Your task to perform on an android device: Open wifi settings Image 0: 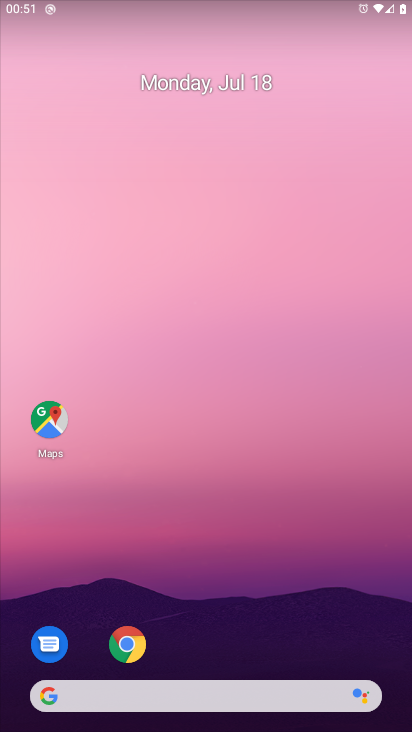
Step 0: press home button
Your task to perform on an android device: Open wifi settings Image 1: 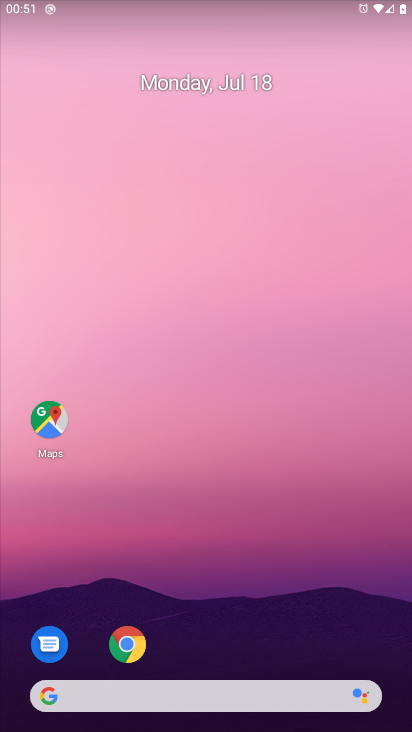
Step 1: drag from (256, 597) to (229, 57)
Your task to perform on an android device: Open wifi settings Image 2: 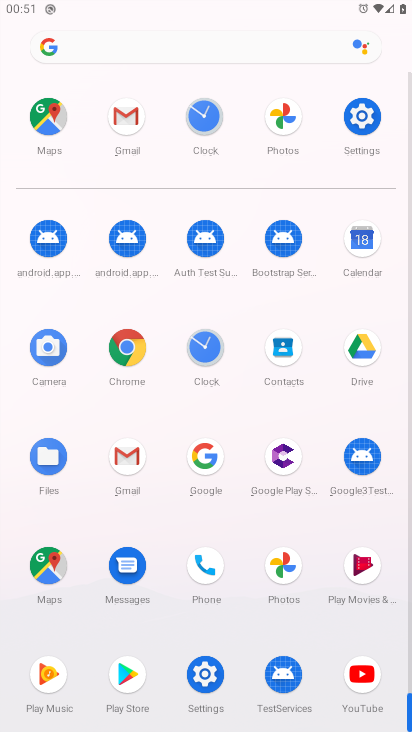
Step 2: click (362, 117)
Your task to perform on an android device: Open wifi settings Image 3: 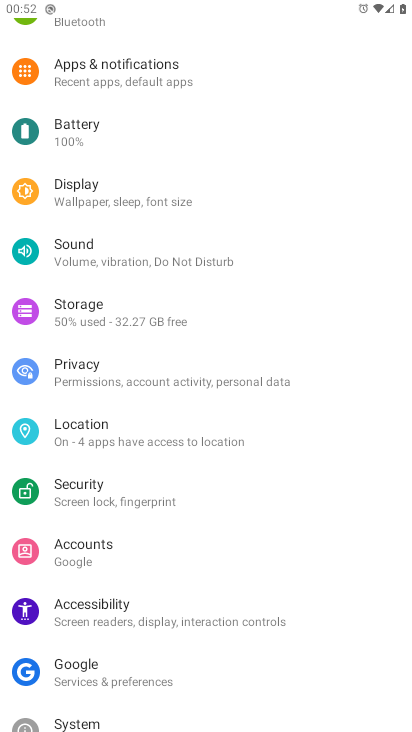
Step 3: drag from (137, 41) to (122, 310)
Your task to perform on an android device: Open wifi settings Image 4: 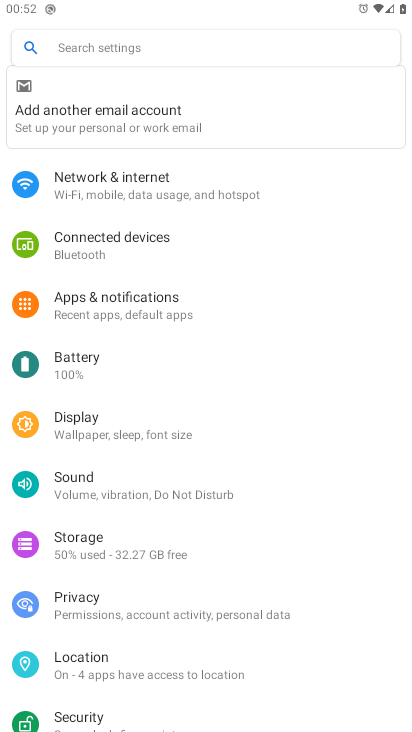
Step 4: click (115, 175)
Your task to perform on an android device: Open wifi settings Image 5: 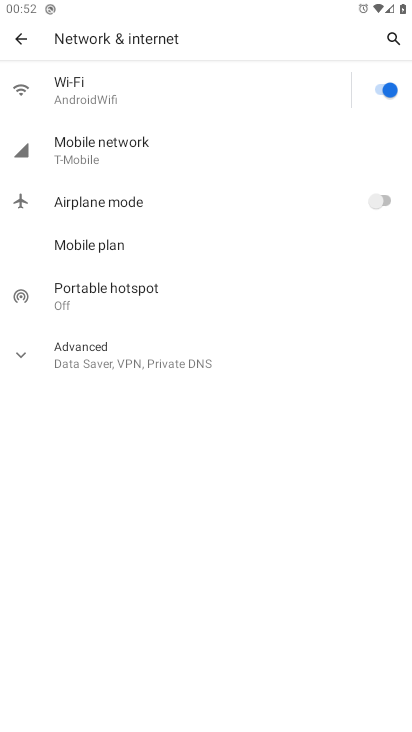
Step 5: task complete